Your task to perform on an android device: turn off priority inbox in the gmail app Image 0: 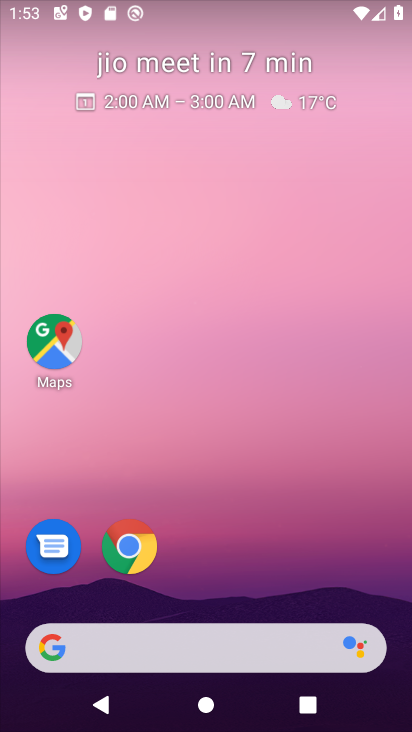
Step 0: drag from (293, 571) to (311, 39)
Your task to perform on an android device: turn off priority inbox in the gmail app Image 1: 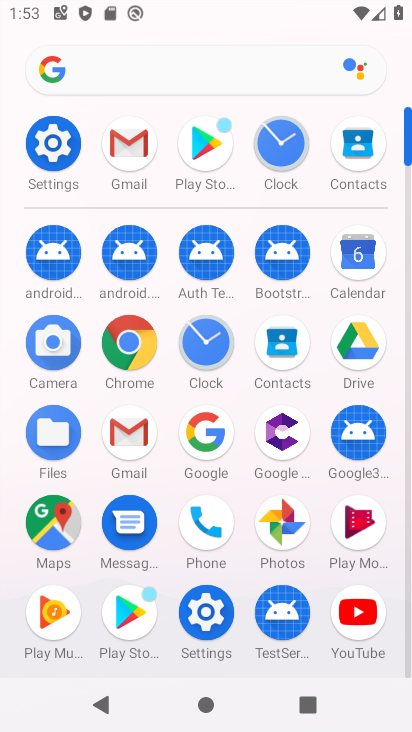
Step 1: click (140, 135)
Your task to perform on an android device: turn off priority inbox in the gmail app Image 2: 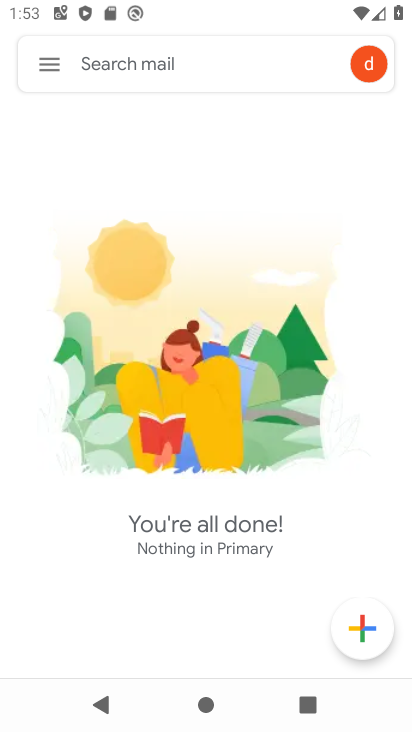
Step 2: task complete